Your task to perform on an android device: read, delete, or share a saved page in the chrome app Image 0: 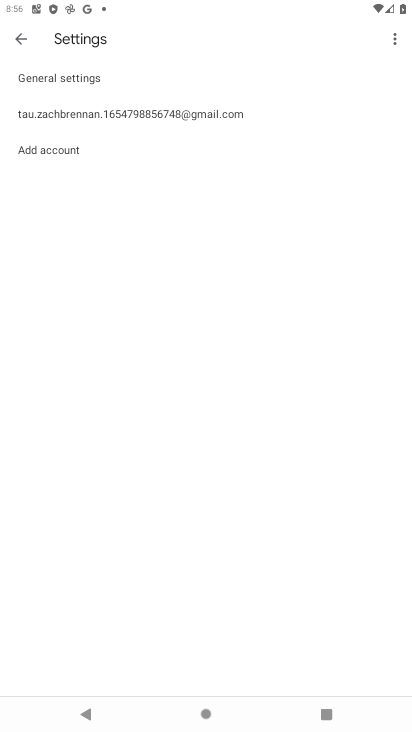
Step 0: press home button
Your task to perform on an android device: read, delete, or share a saved page in the chrome app Image 1: 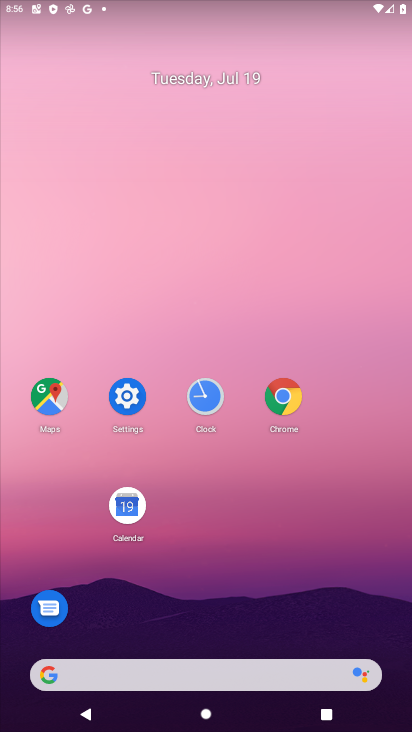
Step 1: click (281, 400)
Your task to perform on an android device: read, delete, or share a saved page in the chrome app Image 2: 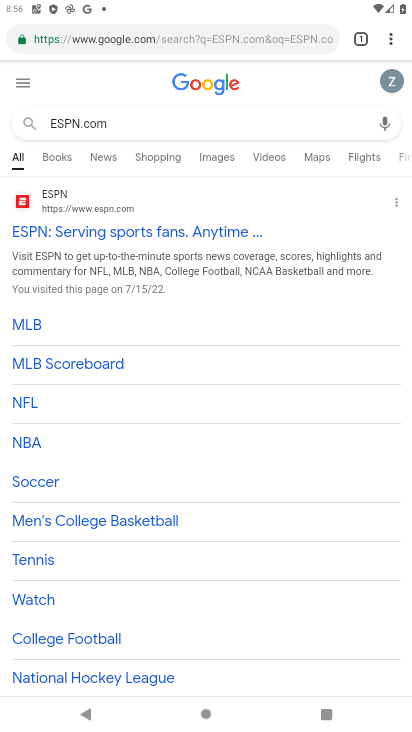
Step 2: click (388, 39)
Your task to perform on an android device: read, delete, or share a saved page in the chrome app Image 3: 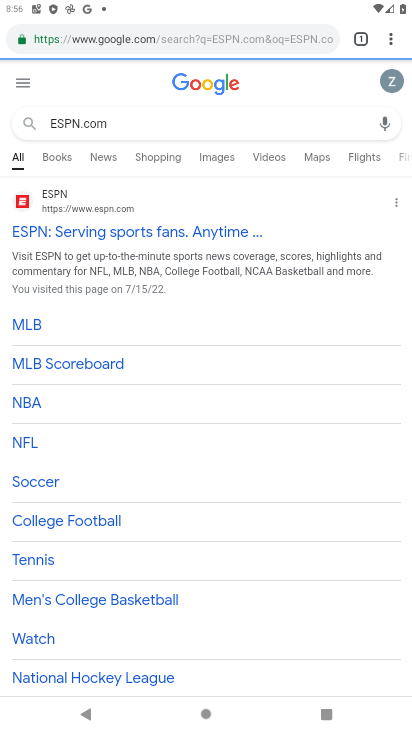
Step 3: click (388, 39)
Your task to perform on an android device: read, delete, or share a saved page in the chrome app Image 4: 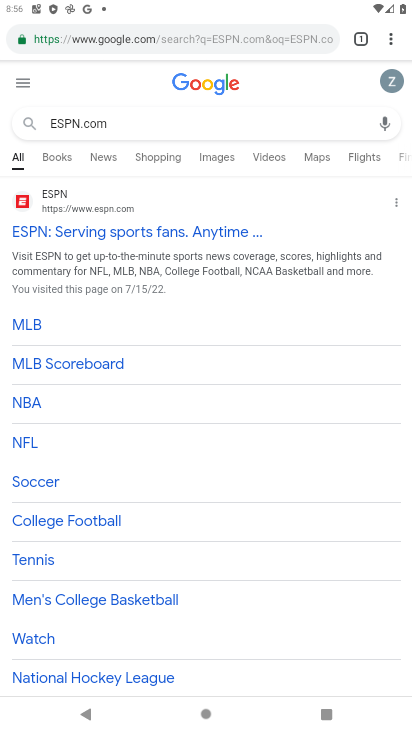
Step 4: click (388, 38)
Your task to perform on an android device: read, delete, or share a saved page in the chrome app Image 5: 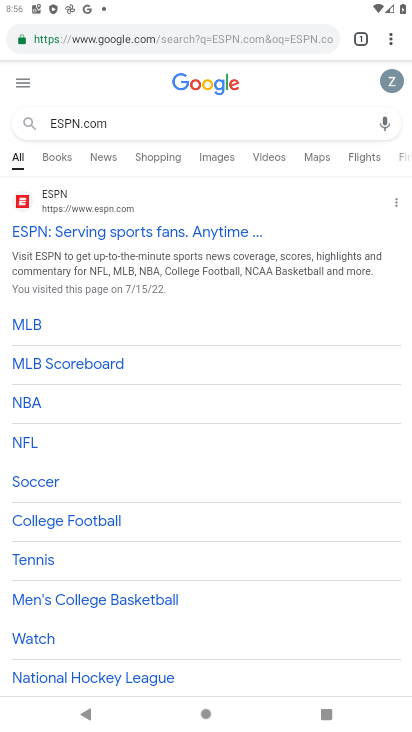
Step 5: click (388, 32)
Your task to perform on an android device: read, delete, or share a saved page in the chrome app Image 6: 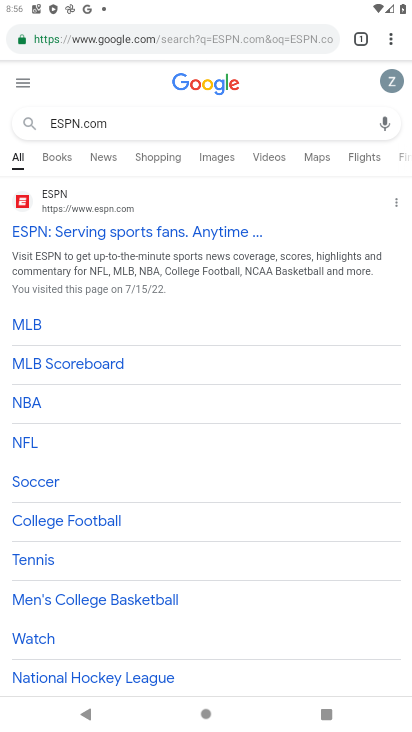
Step 6: click (392, 36)
Your task to perform on an android device: read, delete, or share a saved page in the chrome app Image 7: 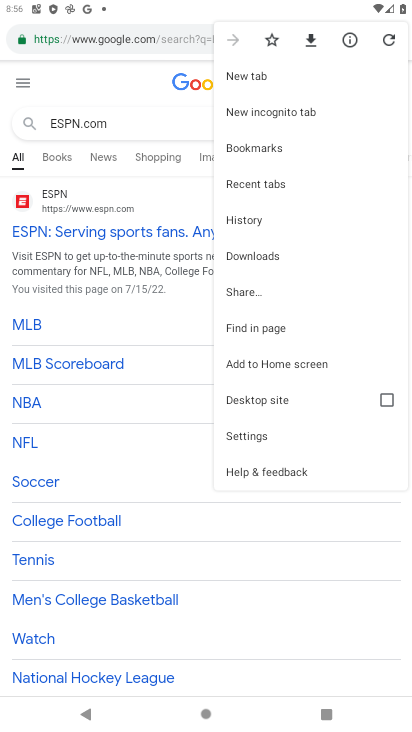
Step 7: click (237, 431)
Your task to perform on an android device: read, delete, or share a saved page in the chrome app Image 8: 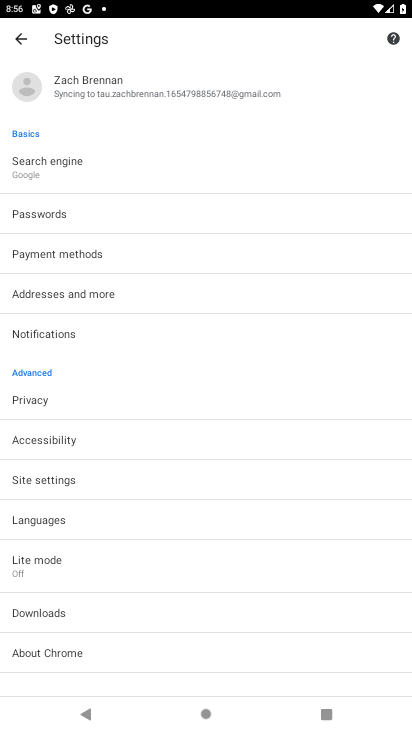
Step 8: click (53, 486)
Your task to perform on an android device: read, delete, or share a saved page in the chrome app Image 9: 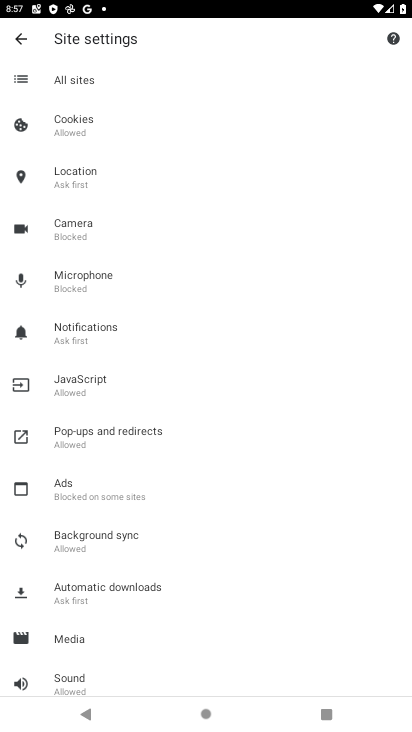
Step 9: click (16, 40)
Your task to perform on an android device: read, delete, or share a saved page in the chrome app Image 10: 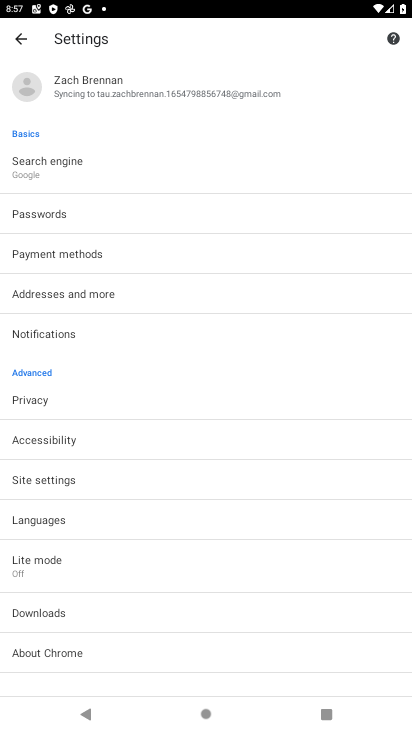
Step 10: click (18, 41)
Your task to perform on an android device: read, delete, or share a saved page in the chrome app Image 11: 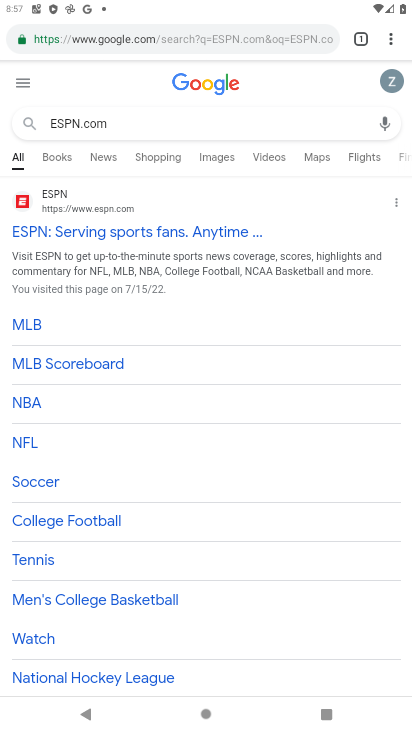
Step 11: click (391, 29)
Your task to perform on an android device: read, delete, or share a saved page in the chrome app Image 12: 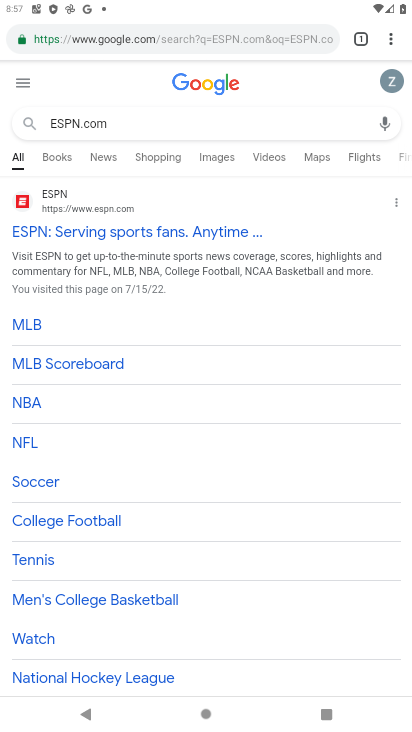
Step 12: click (391, 34)
Your task to perform on an android device: read, delete, or share a saved page in the chrome app Image 13: 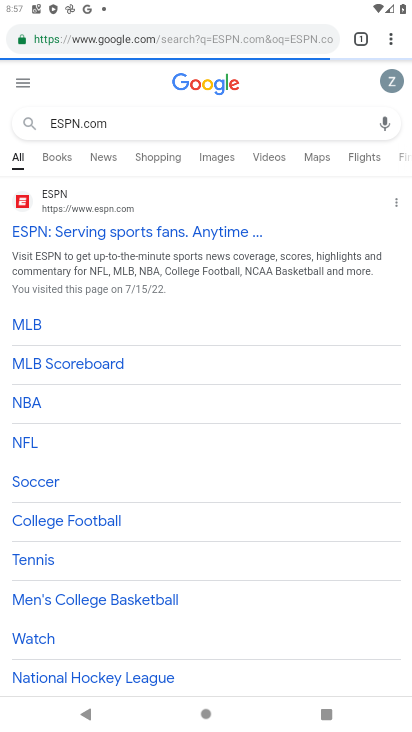
Step 13: click (391, 34)
Your task to perform on an android device: read, delete, or share a saved page in the chrome app Image 14: 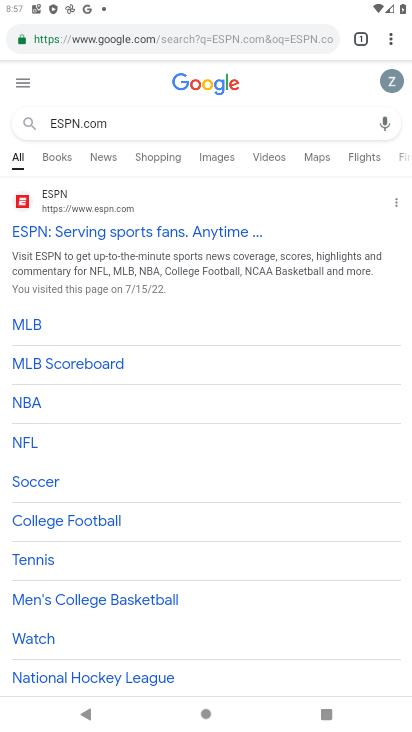
Step 14: click (390, 36)
Your task to perform on an android device: read, delete, or share a saved page in the chrome app Image 15: 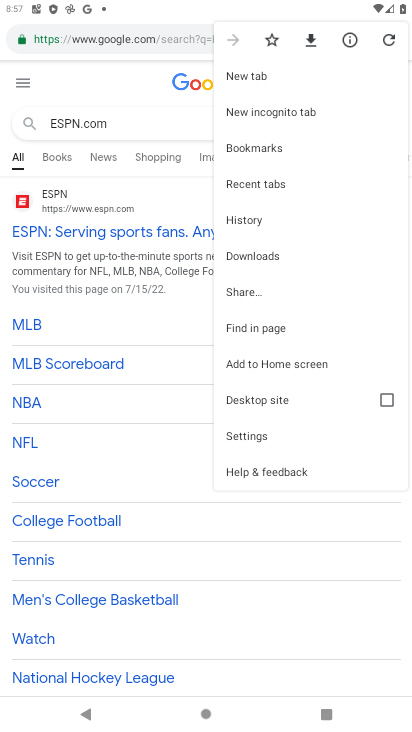
Step 15: click (236, 254)
Your task to perform on an android device: read, delete, or share a saved page in the chrome app Image 16: 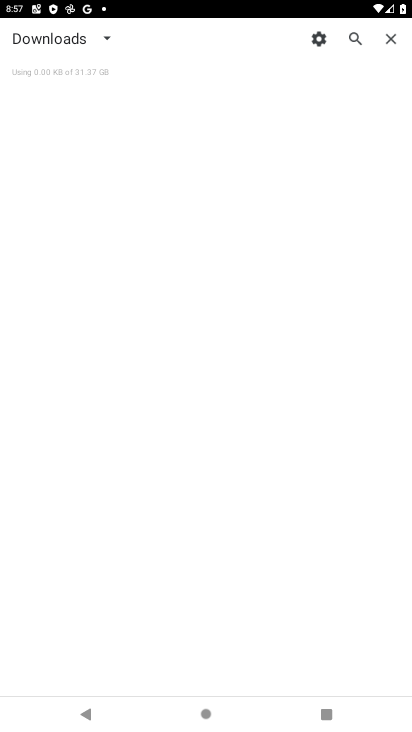
Step 16: task complete